Your task to perform on an android device: Add logitech g910 to the cart on target.com Image 0: 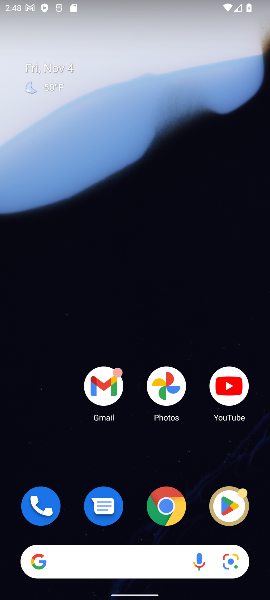
Step 0: drag from (145, 474) to (165, 59)
Your task to perform on an android device: Add logitech g910 to the cart on target.com Image 1: 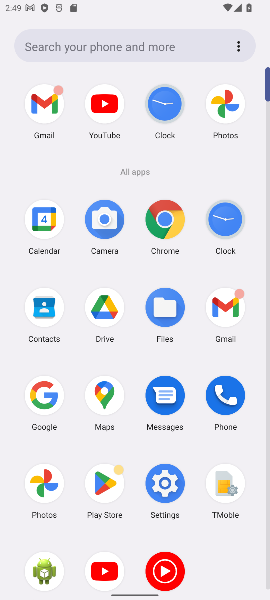
Step 1: click (158, 218)
Your task to perform on an android device: Add logitech g910 to the cart on target.com Image 2: 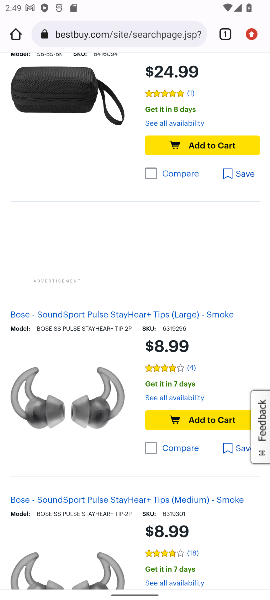
Step 2: click (144, 37)
Your task to perform on an android device: Add logitech g910 to the cart on target.com Image 3: 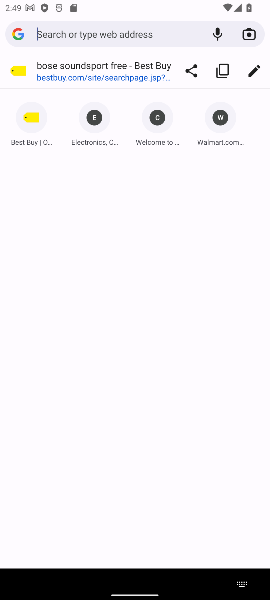
Step 3: type "target.com"
Your task to perform on an android device: Add logitech g910 to the cart on target.com Image 4: 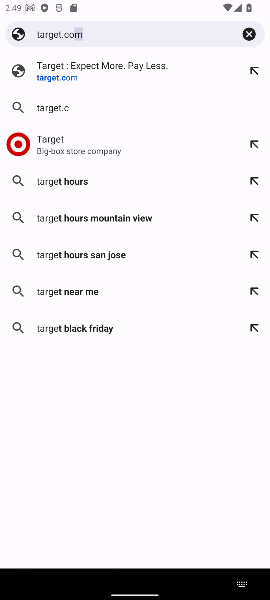
Step 4: press enter
Your task to perform on an android device: Add logitech g910 to the cart on target.com Image 5: 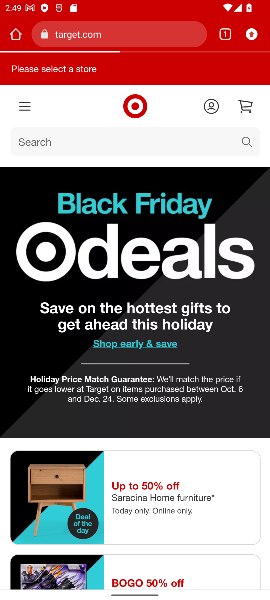
Step 5: click (73, 144)
Your task to perform on an android device: Add logitech g910 to the cart on target.com Image 6: 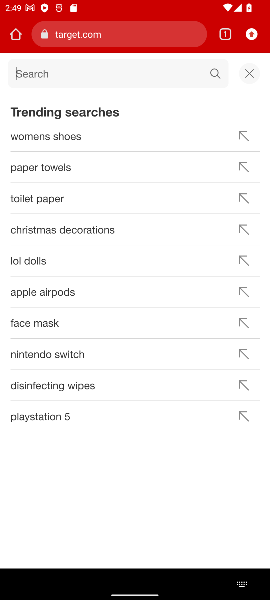
Step 6: type "logitech g910"
Your task to perform on an android device: Add logitech g910 to the cart on target.com Image 7: 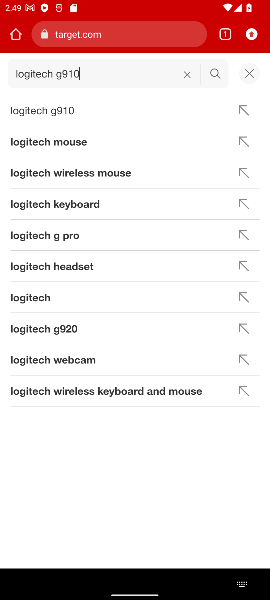
Step 7: press enter
Your task to perform on an android device: Add logitech g910 to the cart on target.com Image 8: 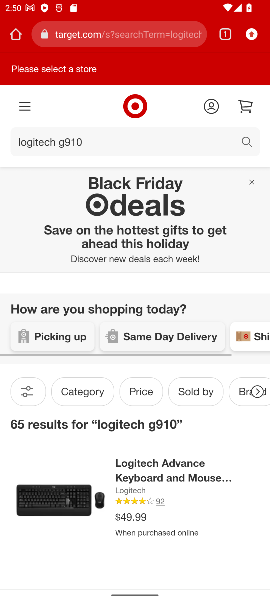
Step 8: task complete